Your task to perform on an android device: turn smart compose on in the gmail app Image 0: 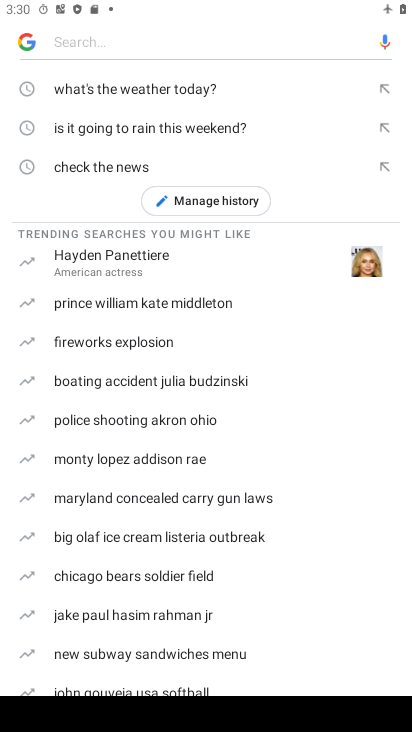
Step 0: press back button
Your task to perform on an android device: turn smart compose on in the gmail app Image 1: 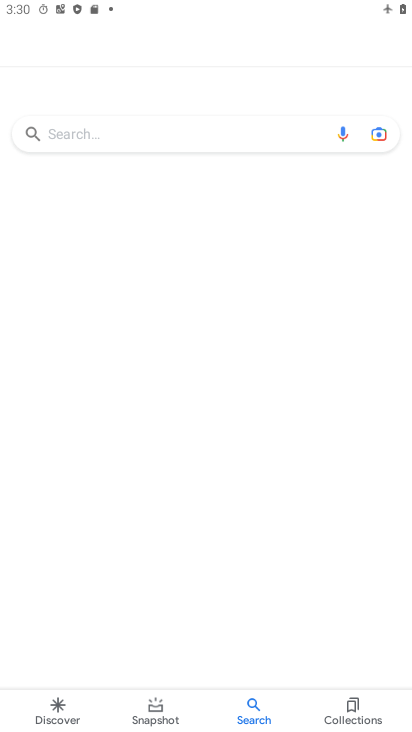
Step 1: press back button
Your task to perform on an android device: turn smart compose on in the gmail app Image 2: 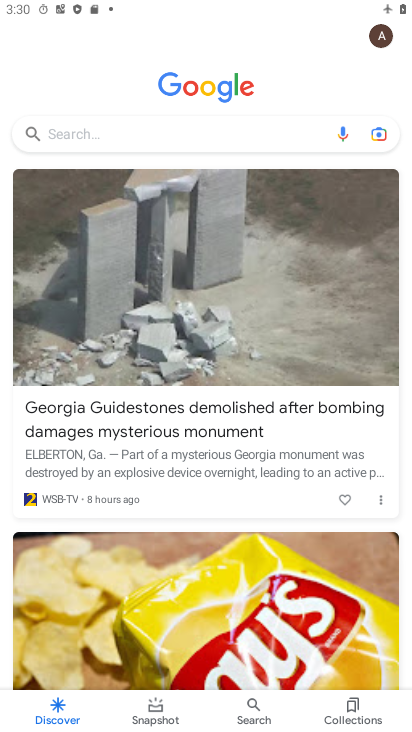
Step 2: press back button
Your task to perform on an android device: turn smart compose on in the gmail app Image 3: 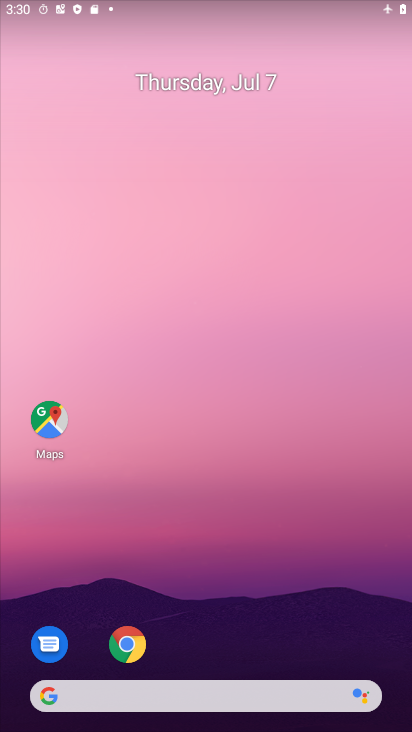
Step 3: drag from (209, 655) to (238, 0)
Your task to perform on an android device: turn smart compose on in the gmail app Image 4: 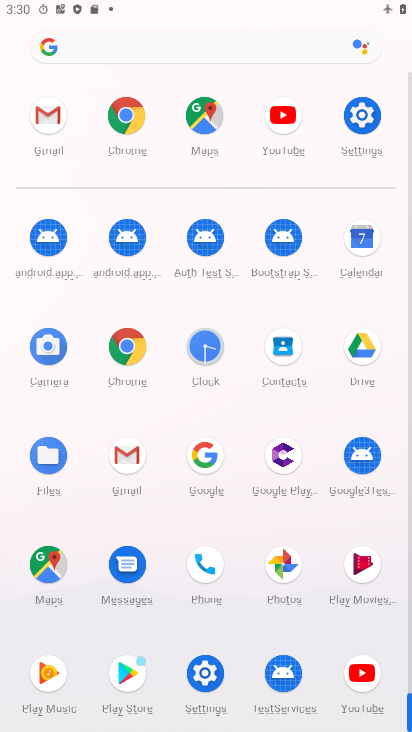
Step 4: click (51, 122)
Your task to perform on an android device: turn smart compose on in the gmail app Image 5: 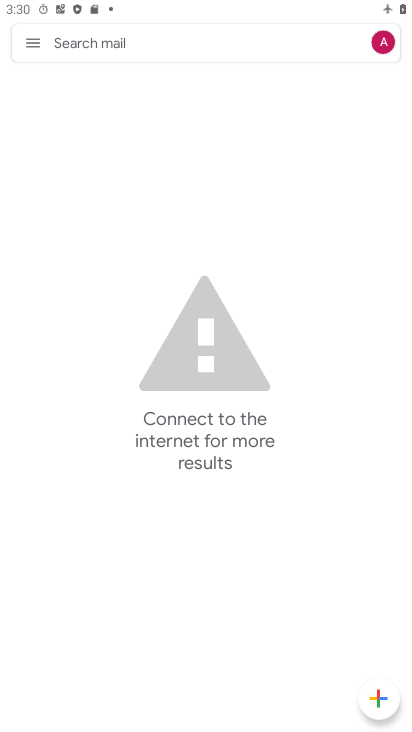
Step 5: click (40, 35)
Your task to perform on an android device: turn smart compose on in the gmail app Image 6: 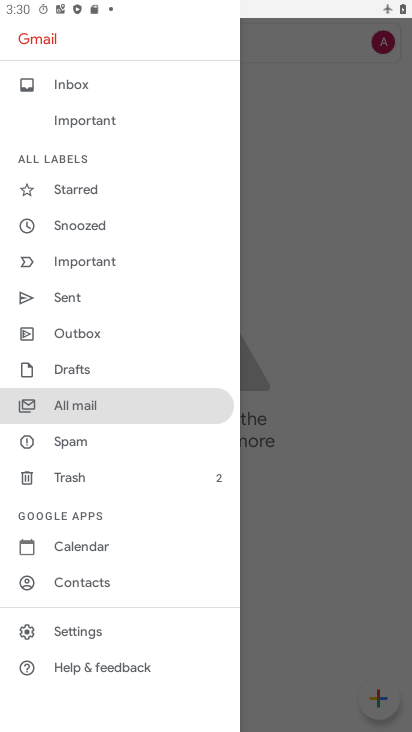
Step 6: click (43, 633)
Your task to perform on an android device: turn smart compose on in the gmail app Image 7: 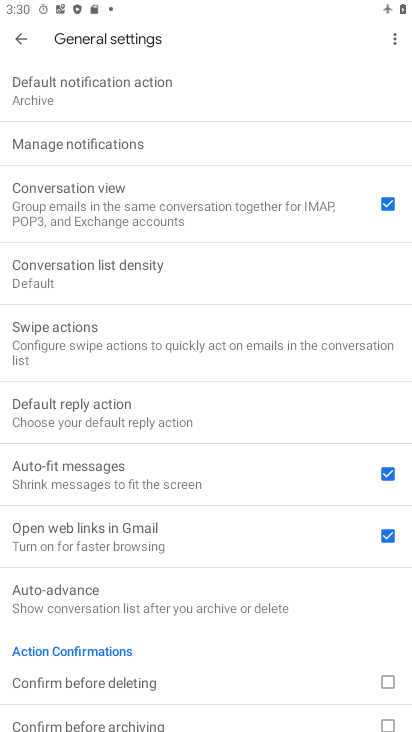
Step 7: drag from (94, 553) to (103, 187)
Your task to perform on an android device: turn smart compose on in the gmail app Image 8: 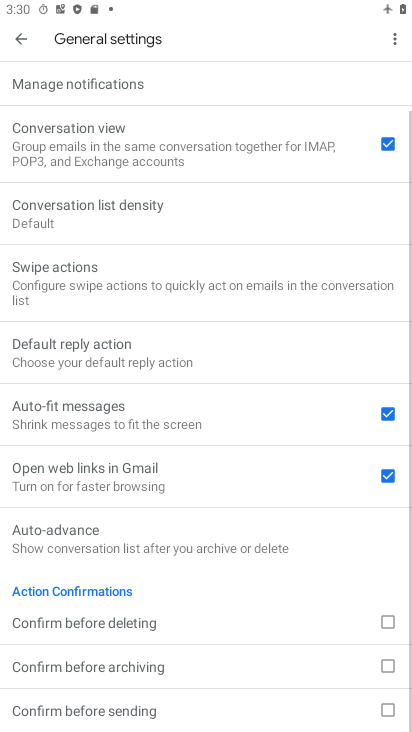
Step 8: click (21, 34)
Your task to perform on an android device: turn smart compose on in the gmail app Image 9: 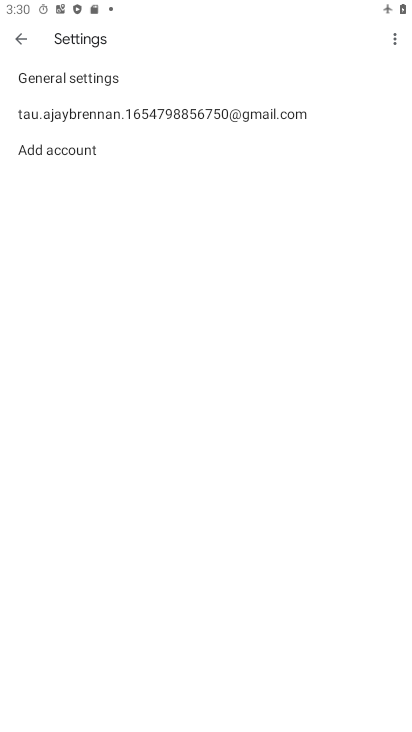
Step 9: click (62, 115)
Your task to perform on an android device: turn smart compose on in the gmail app Image 10: 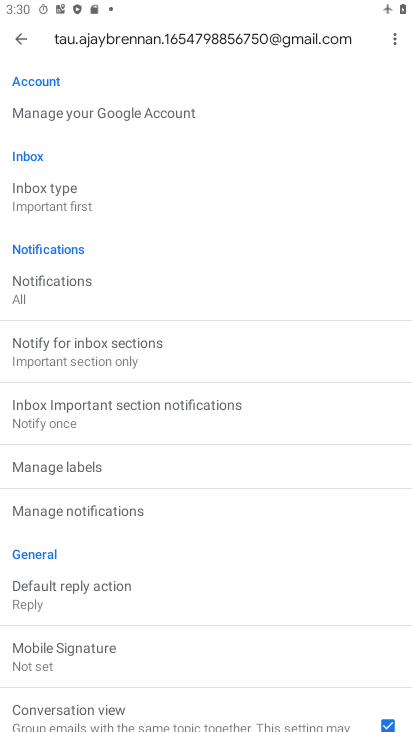
Step 10: task complete